Your task to perform on an android device: Open Maps and search for coffee Image 0: 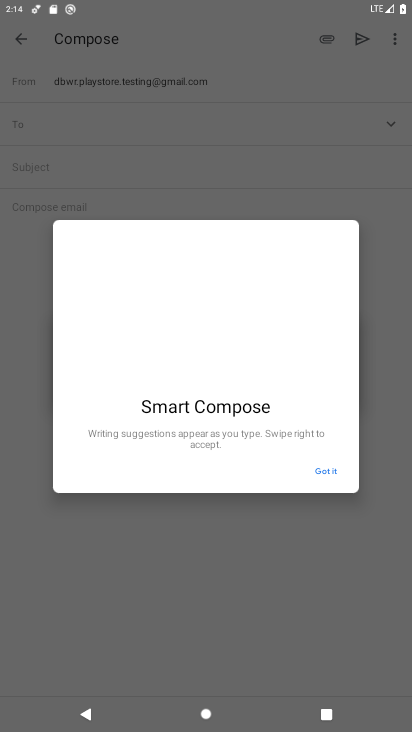
Step 0: press home button
Your task to perform on an android device: Open Maps and search for coffee Image 1: 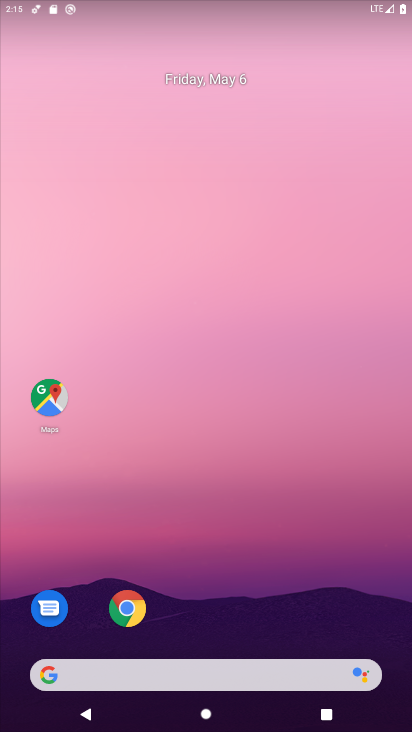
Step 1: click (57, 400)
Your task to perform on an android device: Open Maps and search for coffee Image 2: 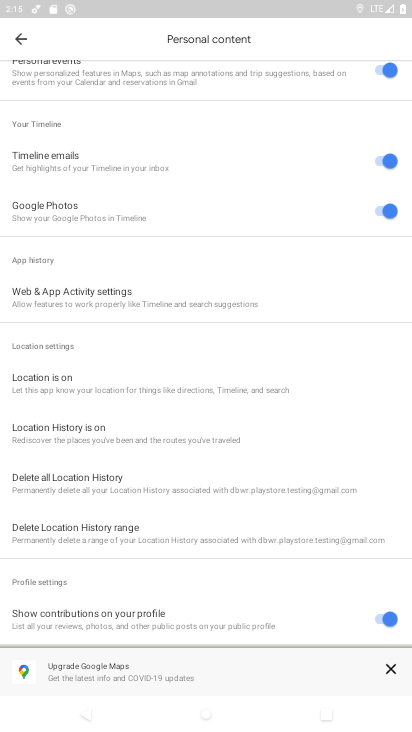
Step 2: click (22, 37)
Your task to perform on an android device: Open Maps and search for coffee Image 3: 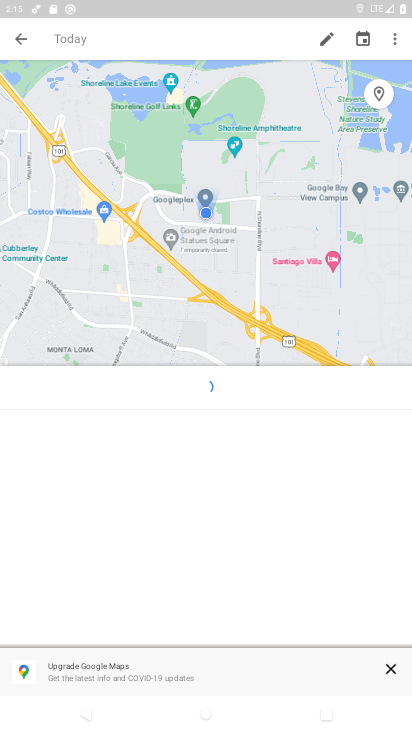
Step 3: click (25, 36)
Your task to perform on an android device: Open Maps and search for coffee Image 4: 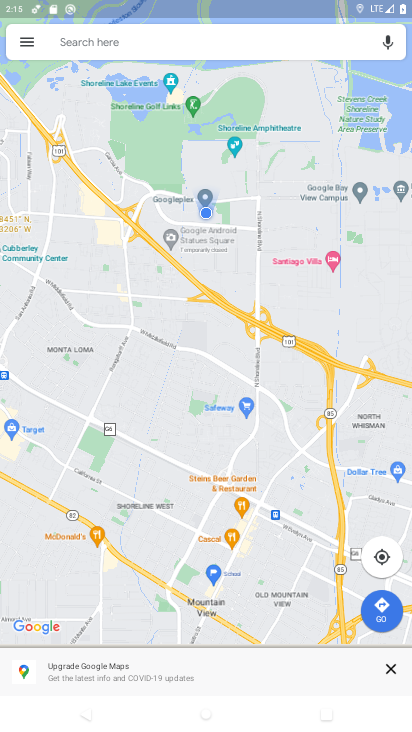
Step 4: click (116, 44)
Your task to perform on an android device: Open Maps and search for coffee Image 5: 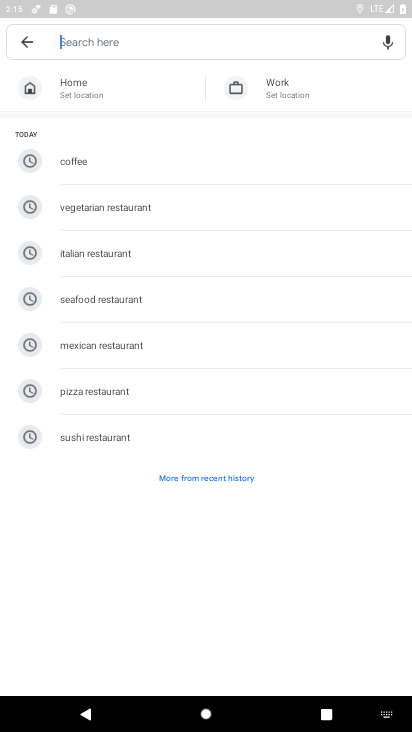
Step 5: type "coffee"
Your task to perform on an android device: Open Maps and search for coffee Image 6: 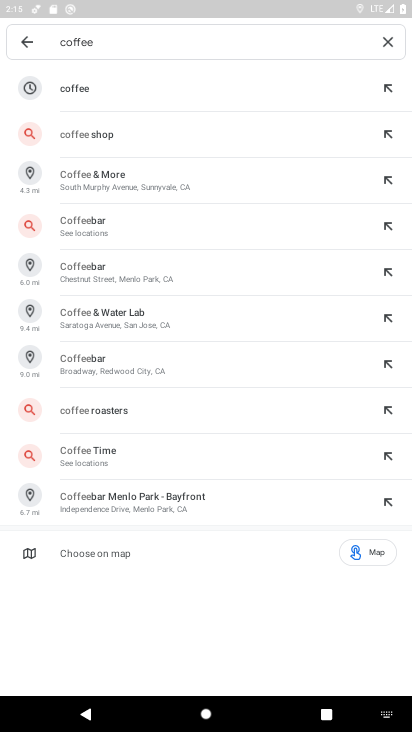
Step 6: click (122, 98)
Your task to perform on an android device: Open Maps and search for coffee Image 7: 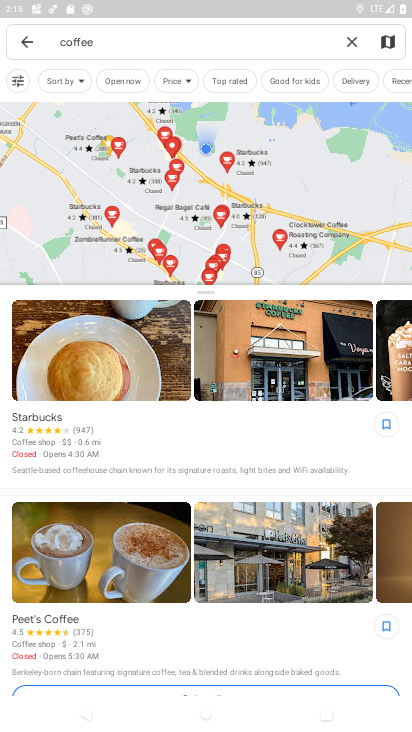
Step 7: task complete